Your task to perform on an android device: Turn off the flashlight Image 0: 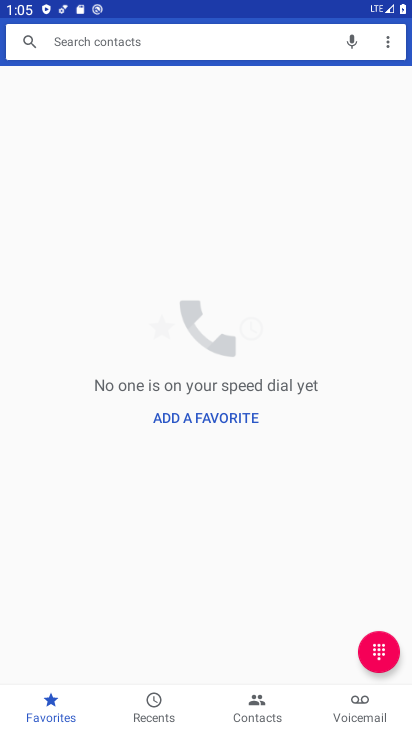
Step 0: press home button
Your task to perform on an android device: Turn off the flashlight Image 1: 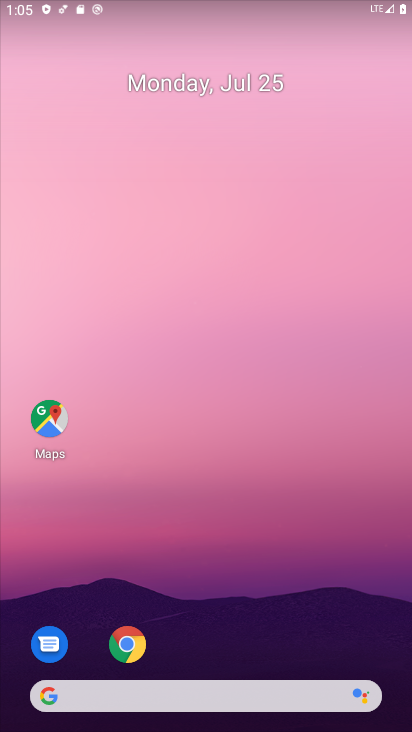
Step 1: drag from (193, 408) to (190, 218)
Your task to perform on an android device: Turn off the flashlight Image 2: 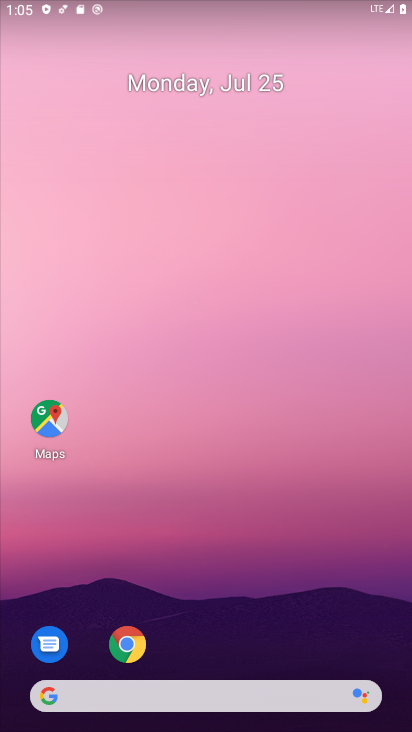
Step 2: click (222, 29)
Your task to perform on an android device: Turn off the flashlight Image 3: 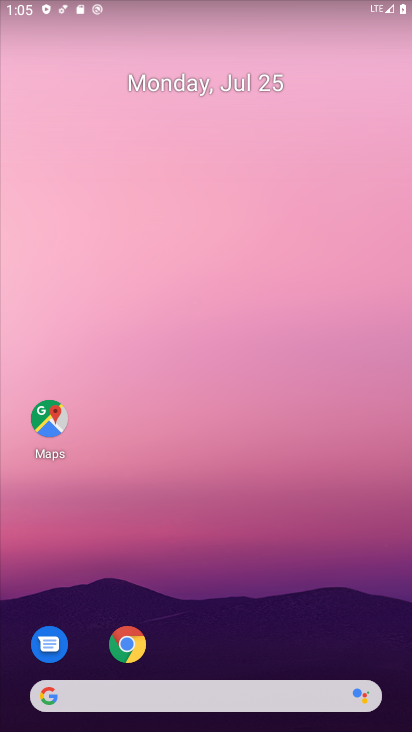
Step 3: drag from (218, 708) to (221, 88)
Your task to perform on an android device: Turn off the flashlight Image 4: 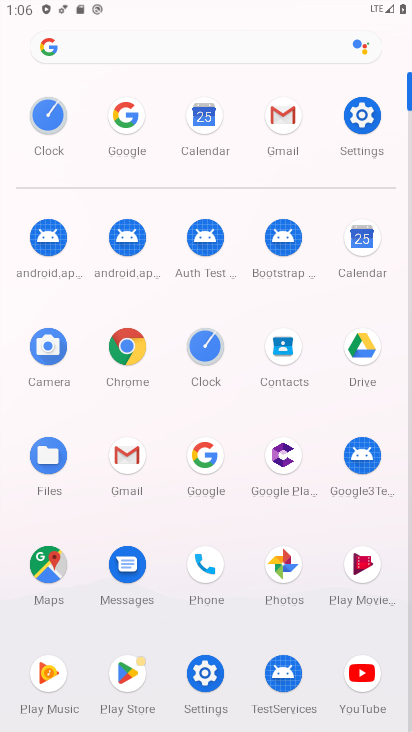
Step 4: click (363, 118)
Your task to perform on an android device: Turn off the flashlight Image 5: 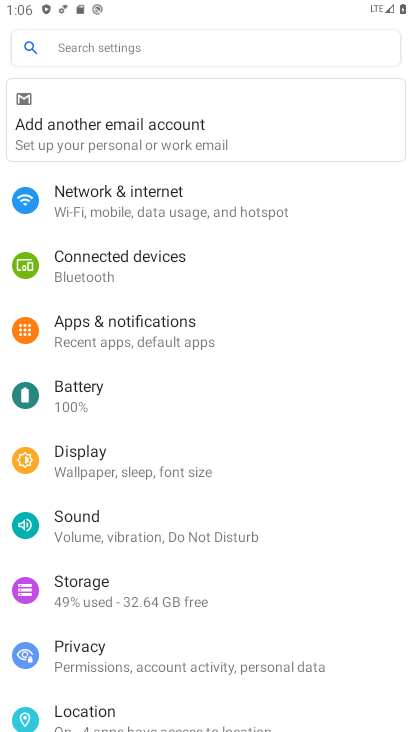
Step 5: click (118, 665)
Your task to perform on an android device: Turn off the flashlight Image 6: 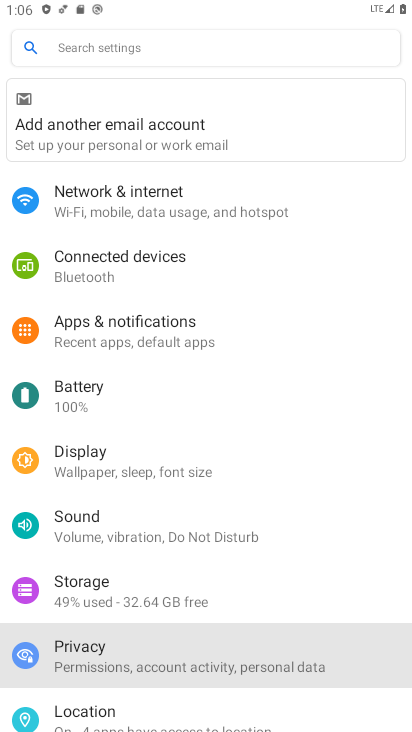
Step 6: click (109, 286)
Your task to perform on an android device: Turn off the flashlight Image 7: 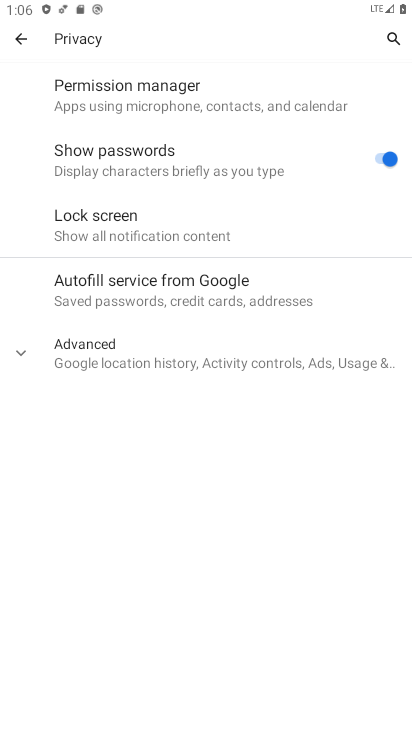
Step 7: click (23, 44)
Your task to perform on an android device: Turn off the flashlight Image 8: 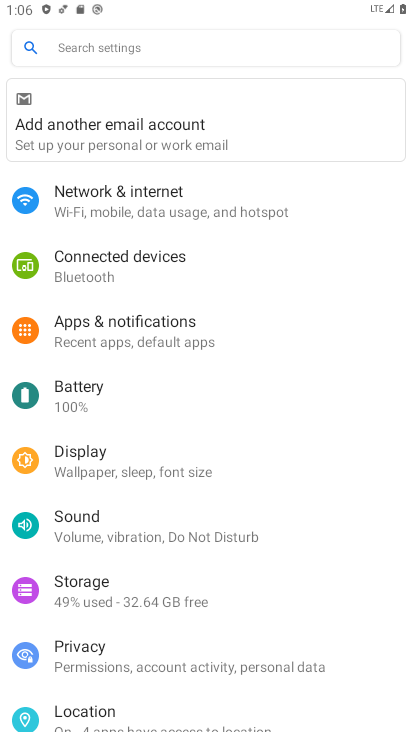
Step 8: task complete